Your task to perform on an android device: Open the calendar app, open the side menu, and click the "Day" option Image 0: 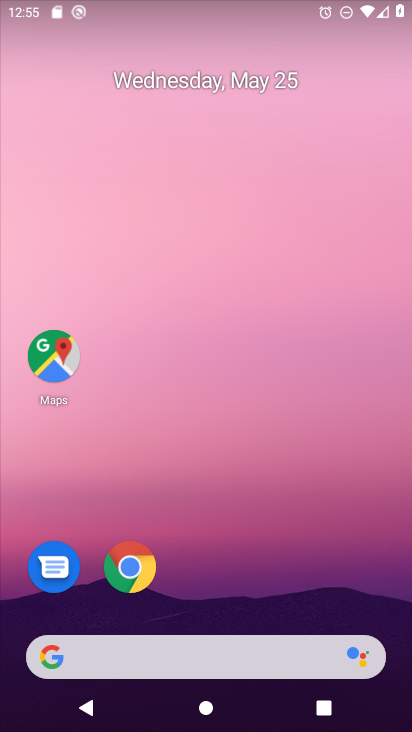
Step 0: drag from (395, 665) to (381, 194)
Your task to perform on an android device: Open the calendar app, open the side menu, and click the "Day" option Image 1: 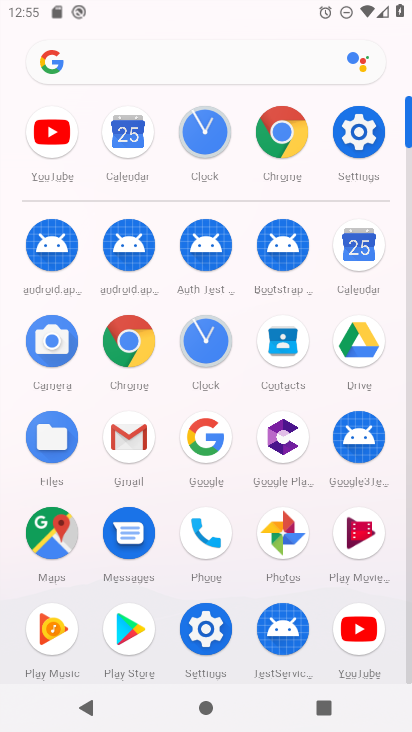
Step 1: click (358, 138)
Your task to perform on an android device: Open the calendar app, open the side menu, and click the "Day" option Image 2: 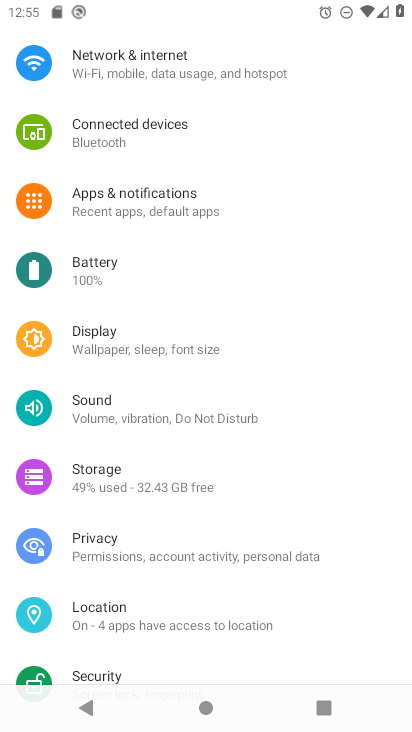
Step 2: drag from (288, 207) to (293, 584)
Your task to perform on an android device: Open the calendar app, open the side menu, and click the "Day" option Image 3: 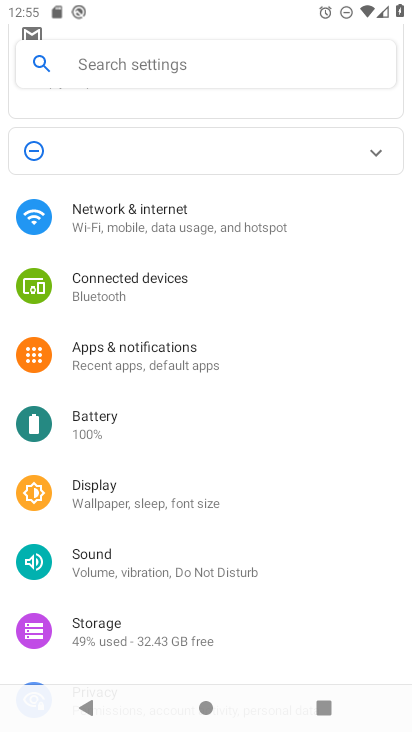
Step 3: press home button
Your task to perform on an android device: Open the calendar app, open the side menu, and click the "Day" option Image 4: 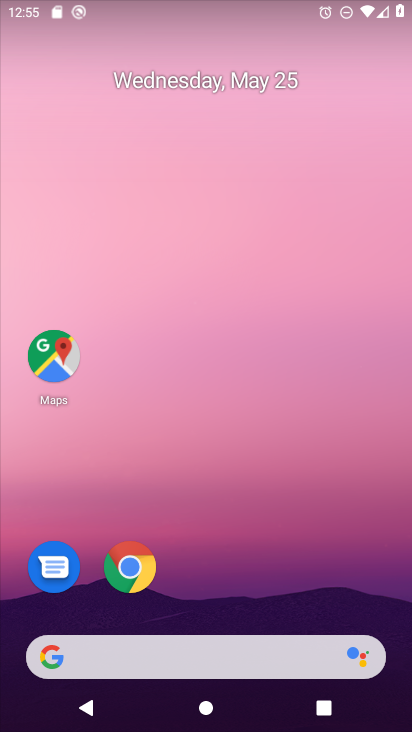
Step 4: drag from (402, 686) to (394, 230)
Your task to perform on an android device: Open the calendar app, open the side menu, and click the "Day" option Image 5: 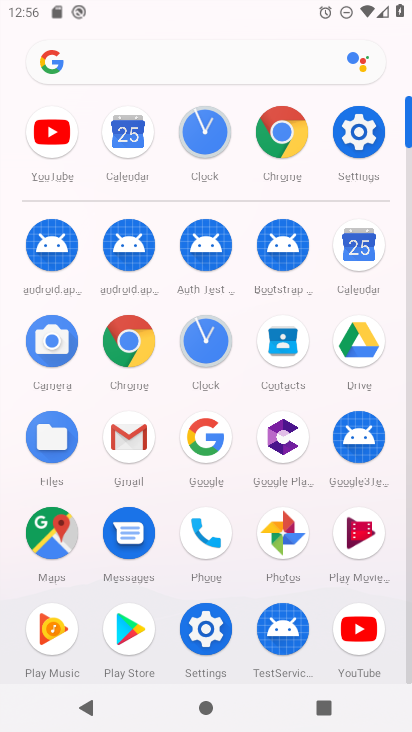
Step 5: click (354, 257)
Your task to perform on an android device: Open the calendar app, open the side menu, and click the "Day" option Image 6: 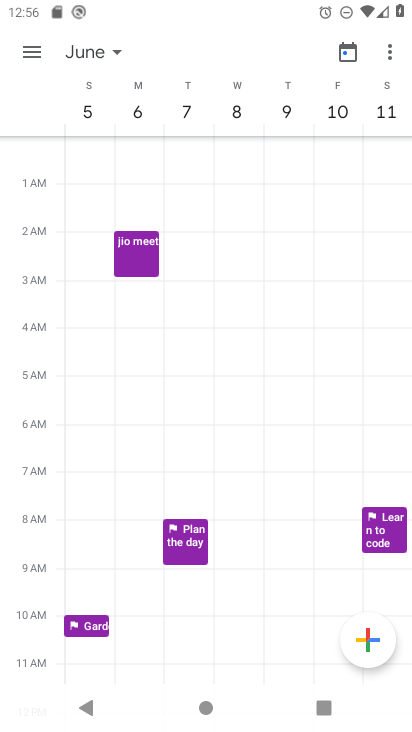
Step 6: click (28, 51)
Your task to perform on an android device: Open the calendar app, open the side menu, and click the "Day" option Image 7: 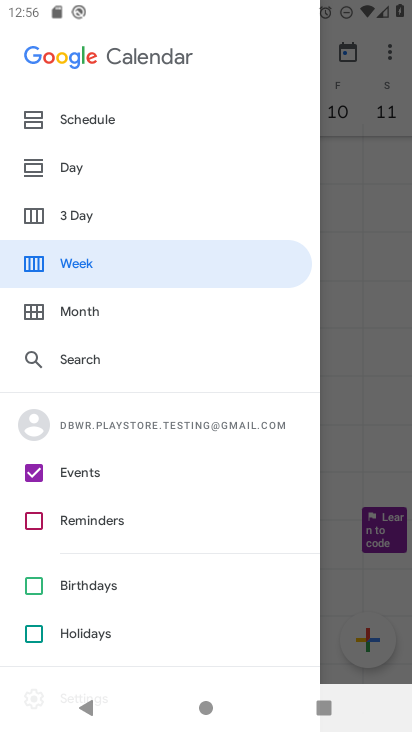
Step 7: click (65, 162)
Your task to perform on an android device: Open the calendar app, open the side menu, and click the "Day" option Image 8: 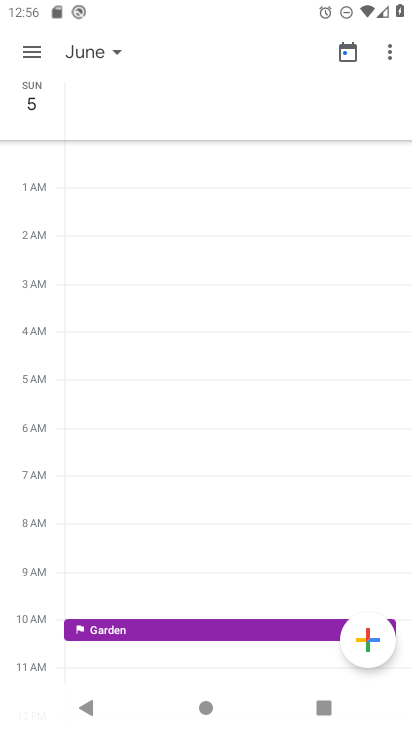
Step 8: task complete